Your task to perform on an android device: See recent photos Image 0: 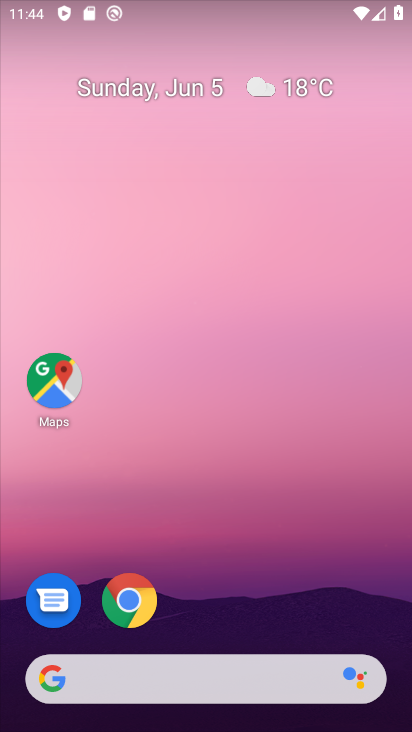
Step 0: drag from (249, 695) to (150, 120)
Your task to perform on an android device: See recent photos Image 1: 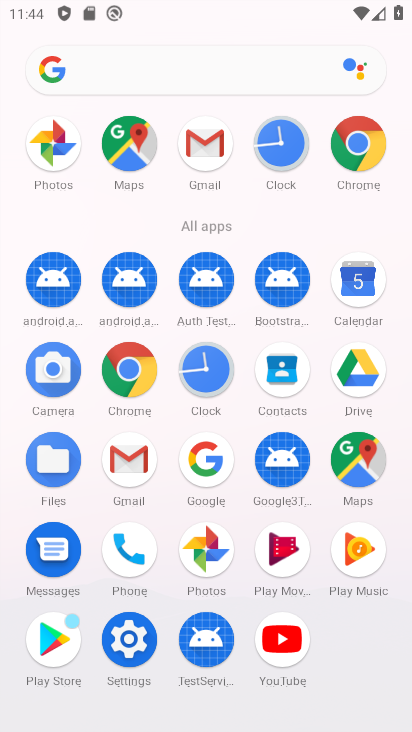
Step 1: click (202, 548)
Your task to perform on an android device: See recent photos Image 2: 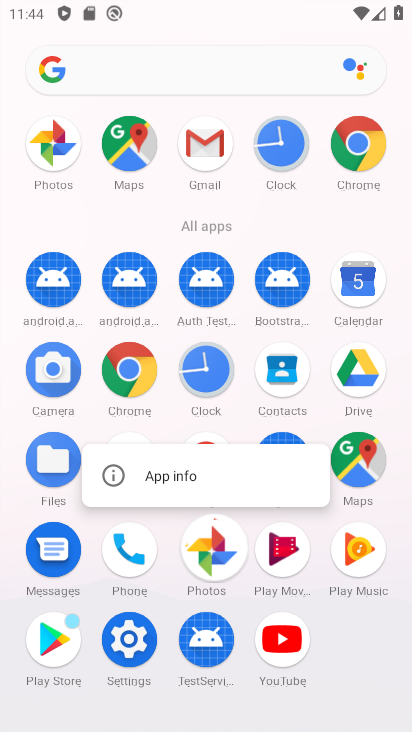
Step 2: click (205, 545)
Your task to perform on an android device: See recent photos Image 3: 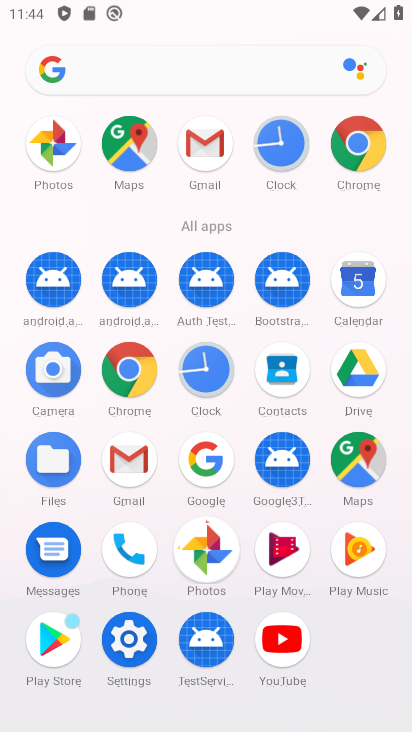
Step 3: click (201, 546)
Your task to perform on an android device: See recent photos Image 4: 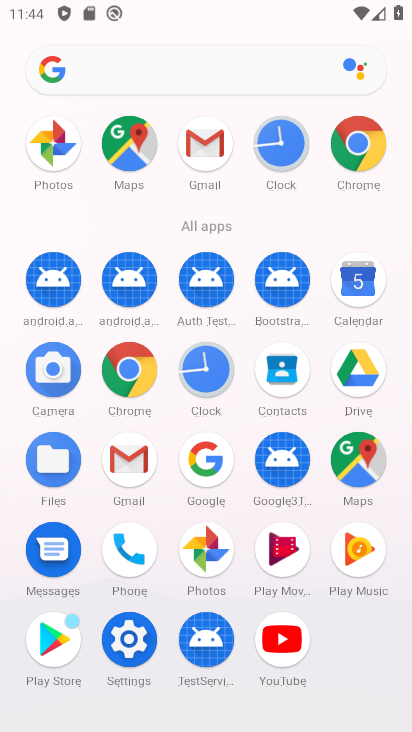
Step 4: click (204, 543)
Your task to perform on an android device: See recent photos Image 5: 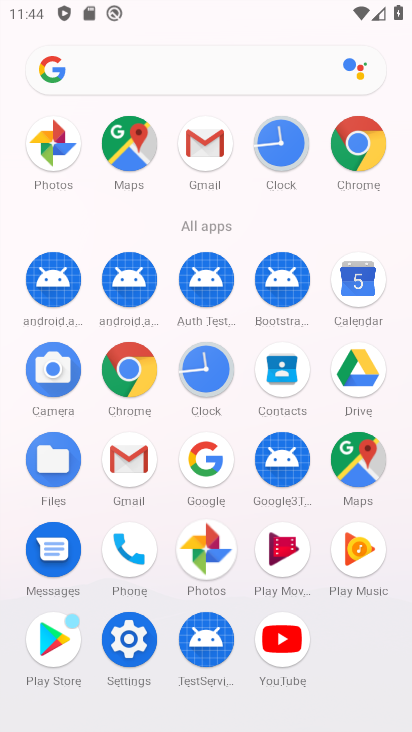
Step 5: click (204, 543)
Your task to perform on an android device: See recent photos Image 6: 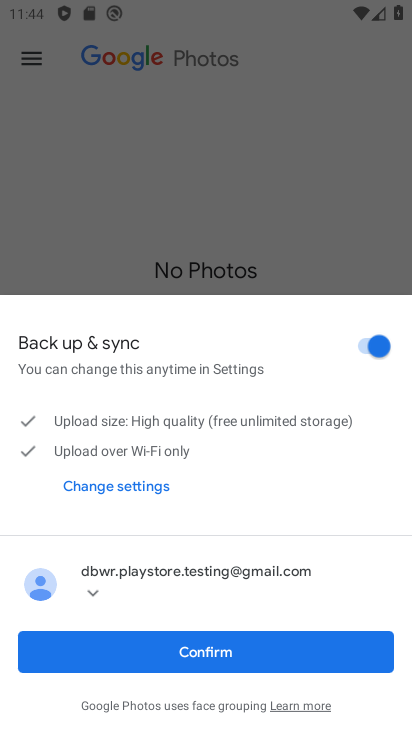
Step 6: click (202, 644)
Your task to perform on an android device: See recent photos Image 7: 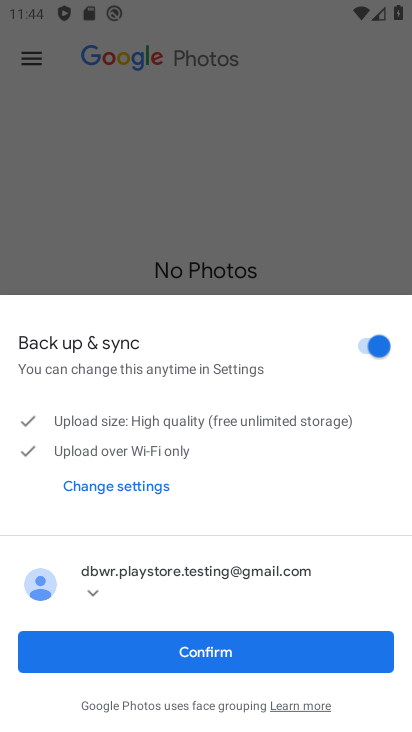
Step 7: click (212, 641)
Your task to perform on an android device: See recent photos Image 8: 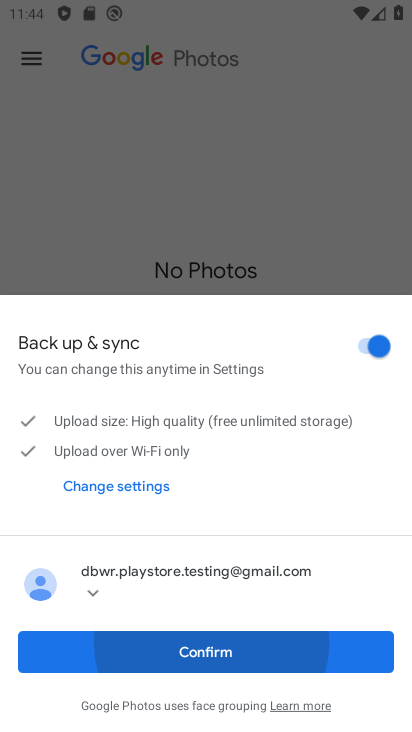
Step 8: click (212, 642)
Your task to perform on an android device: See recent photos Image 9: 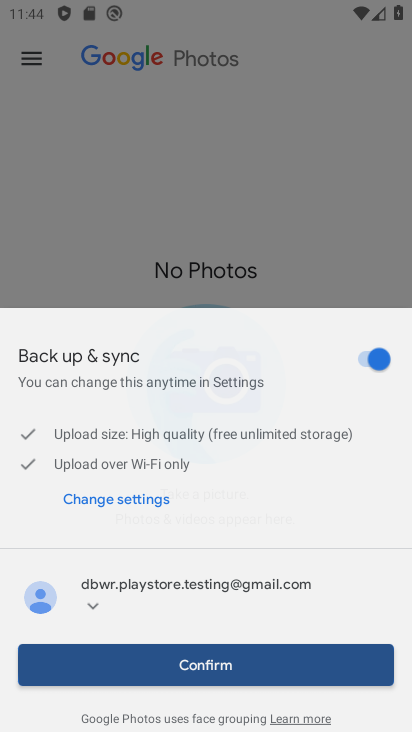
Step 9: click (212, 643)
Your task to perform on an android device: See recent photos Image 10: 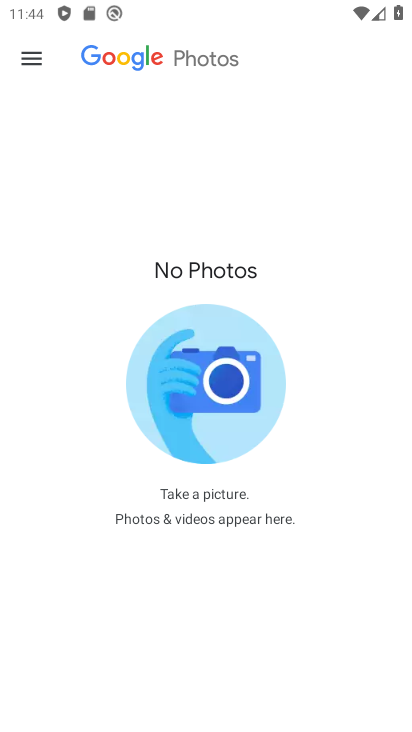
Step 10: click (212, 643)
Your task to perform on an android device: See recent photos Image 11: 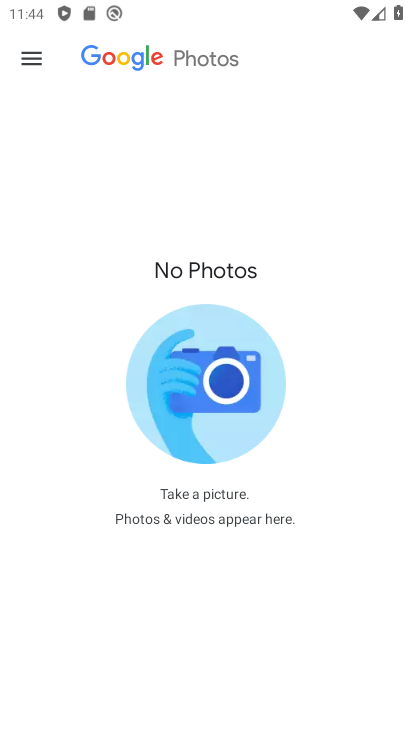
Step 11: click (212, 643)
Your task to perform on an android device: See recent photos Image 12: 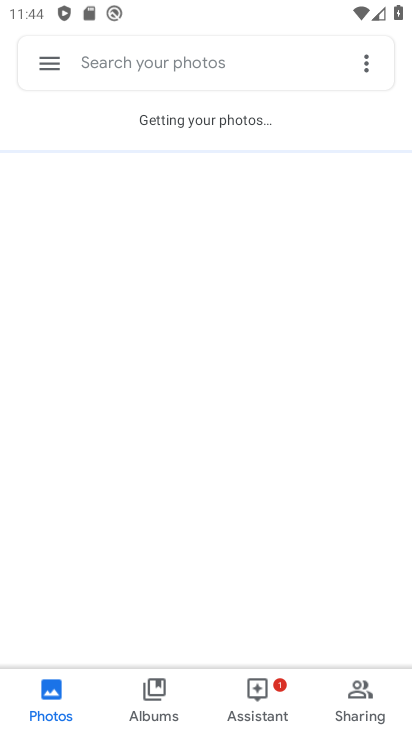
Step 12: task complete